Your task to perform on an android device: star an email in the gmail app Image 0: 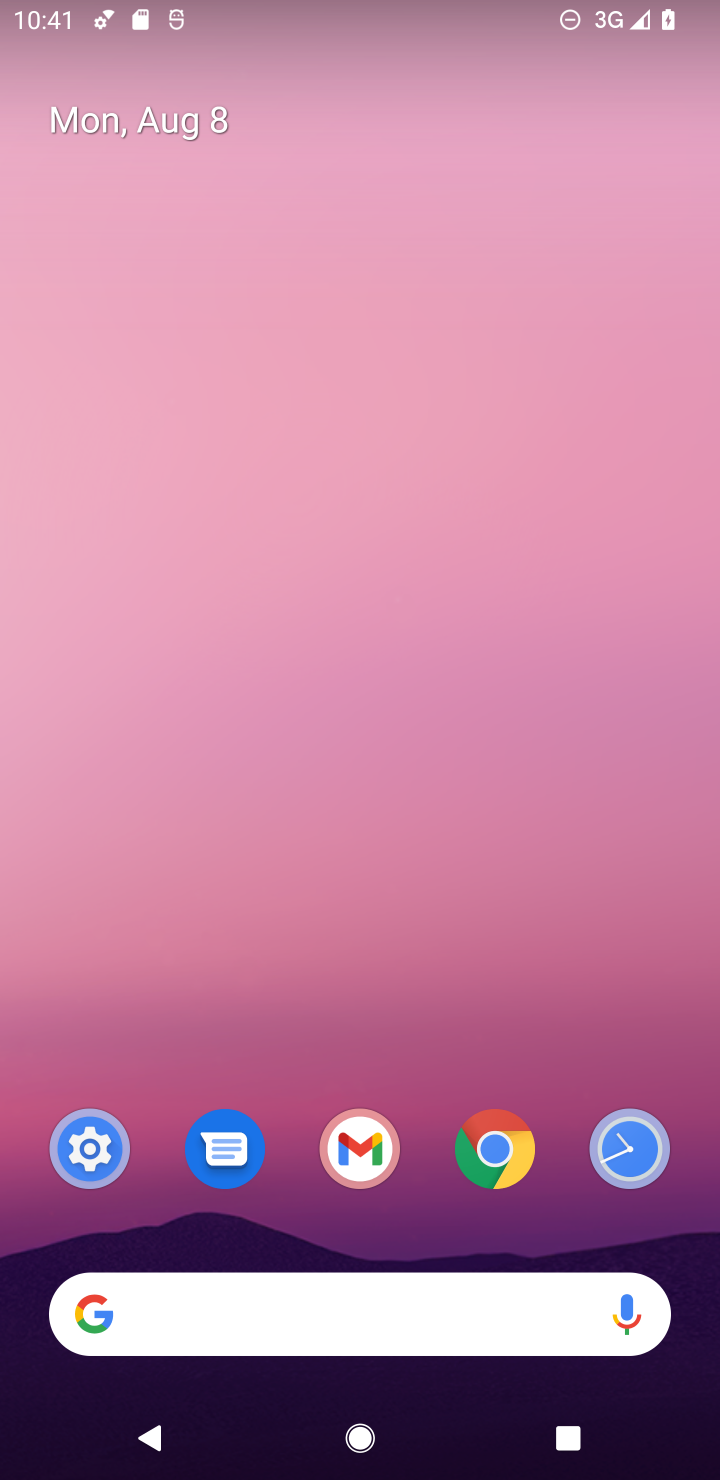
Step 0: drag from (302, 774) to (336, 389)
Your task to perform on an android device: star an email in the gmail app Image 1: 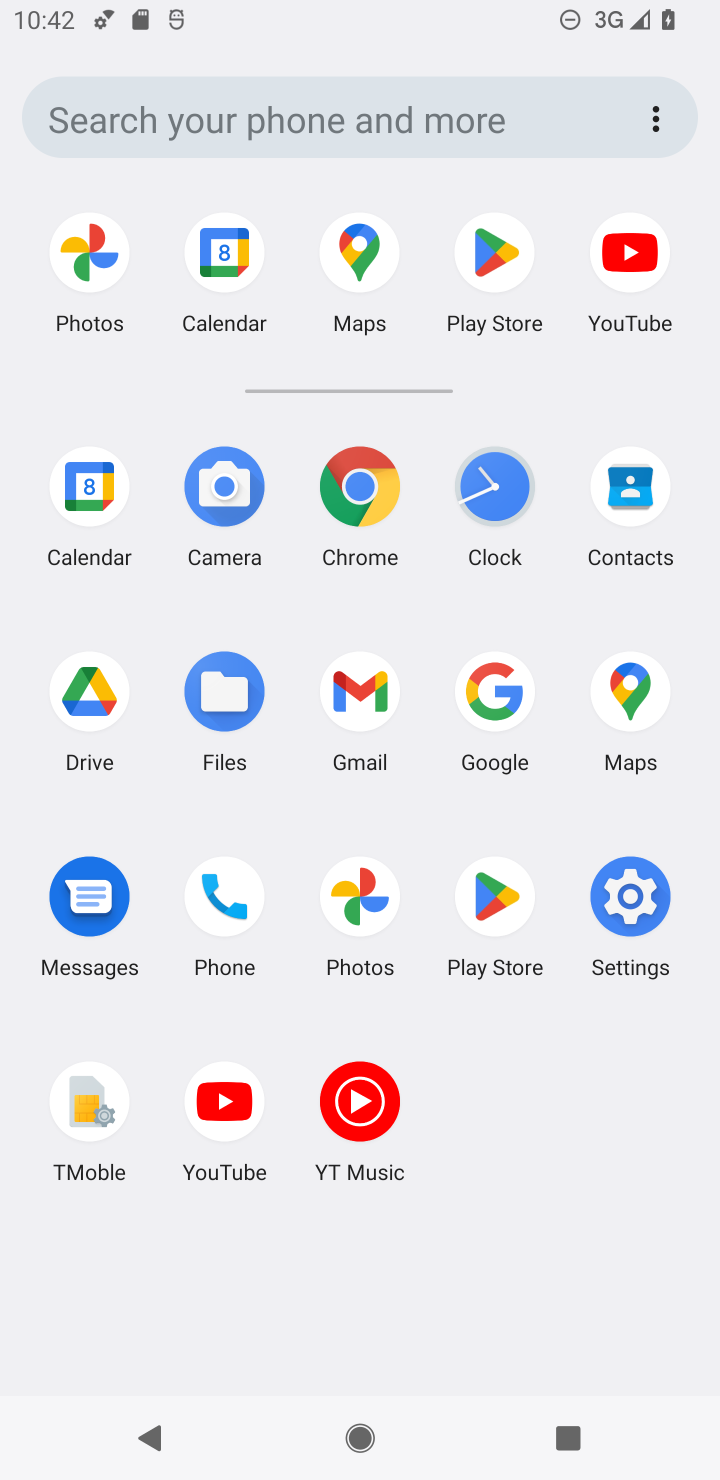
Step 1: click (365, 700)
Your task to perform on an android device: star an email in the gmail app Image 2: 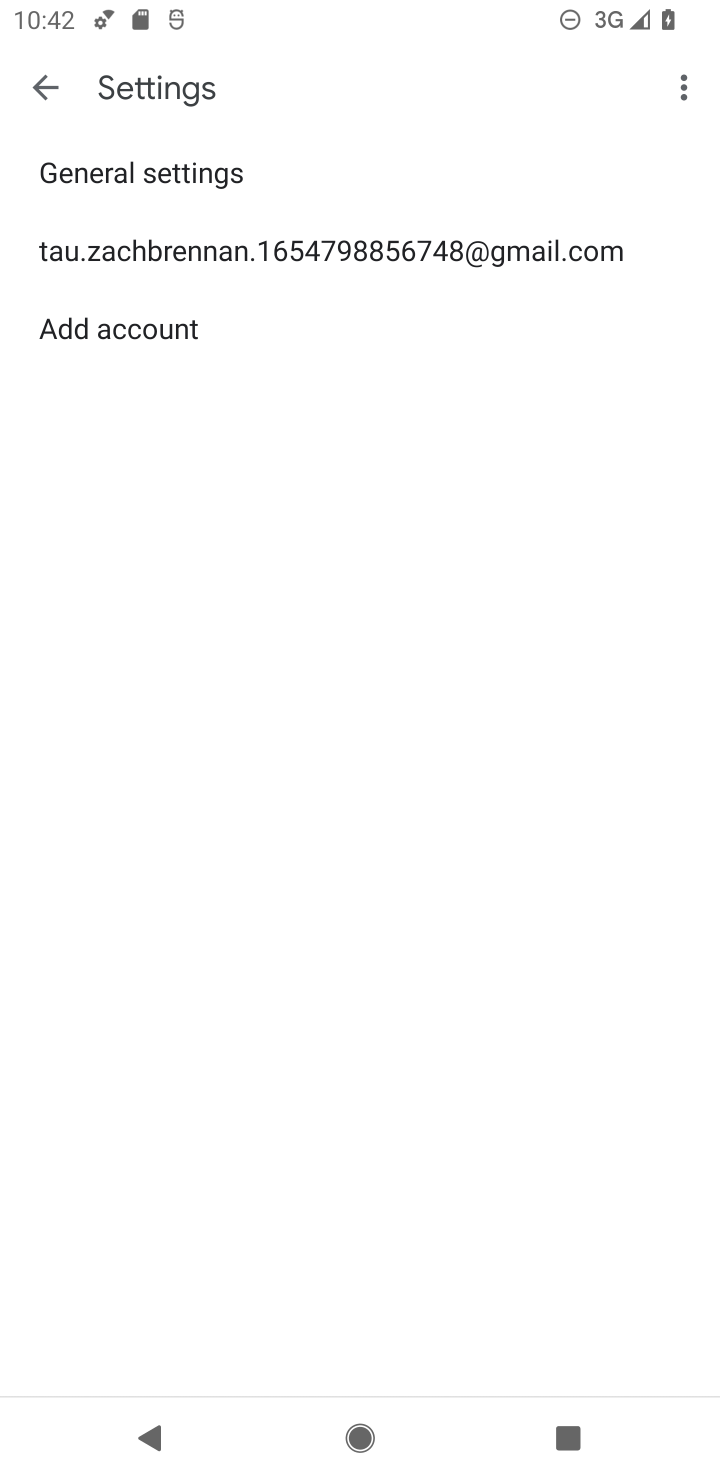
Step 2: click (51, 91)
Your task to perform on an android device: star an email in the gmail app Image 3: 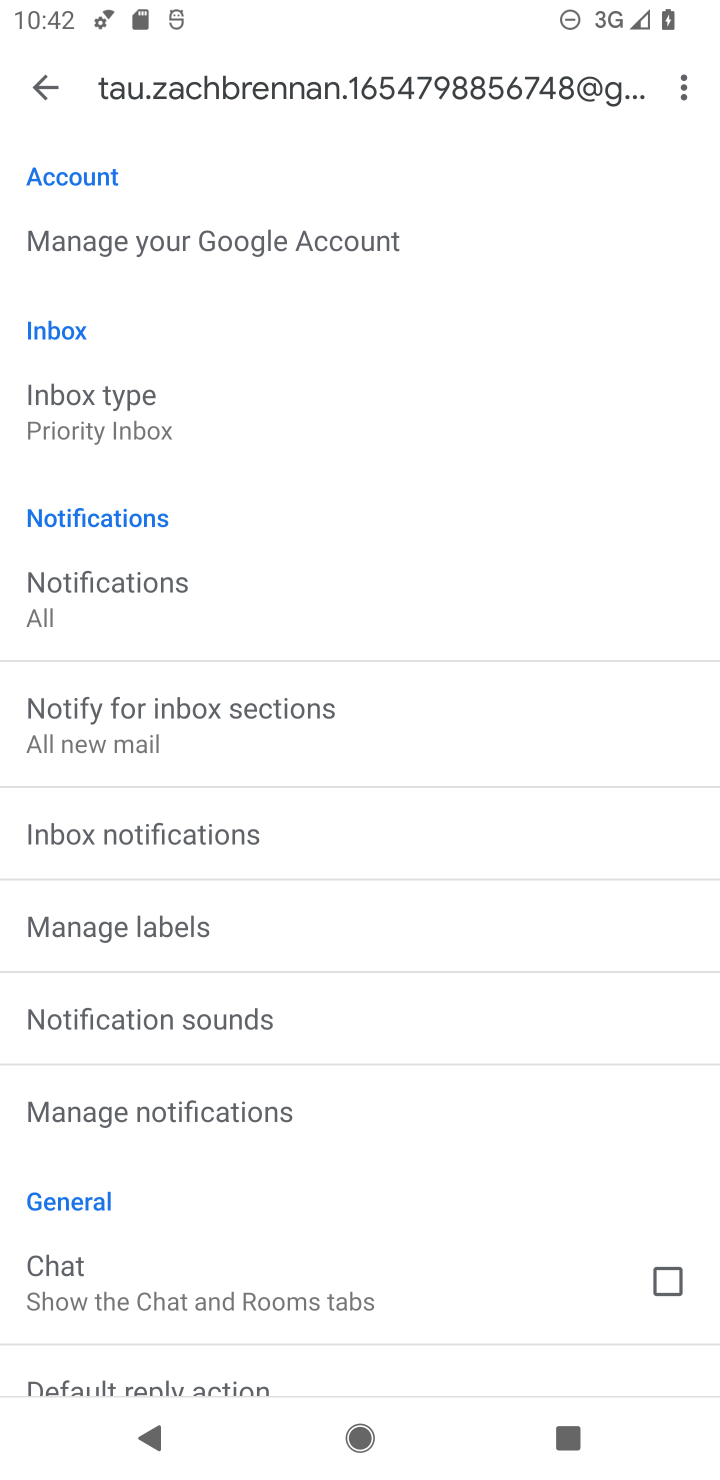
Step 3: click (48, 82)
Your task to perform on an android device: star an email in the gmail app Image 4: 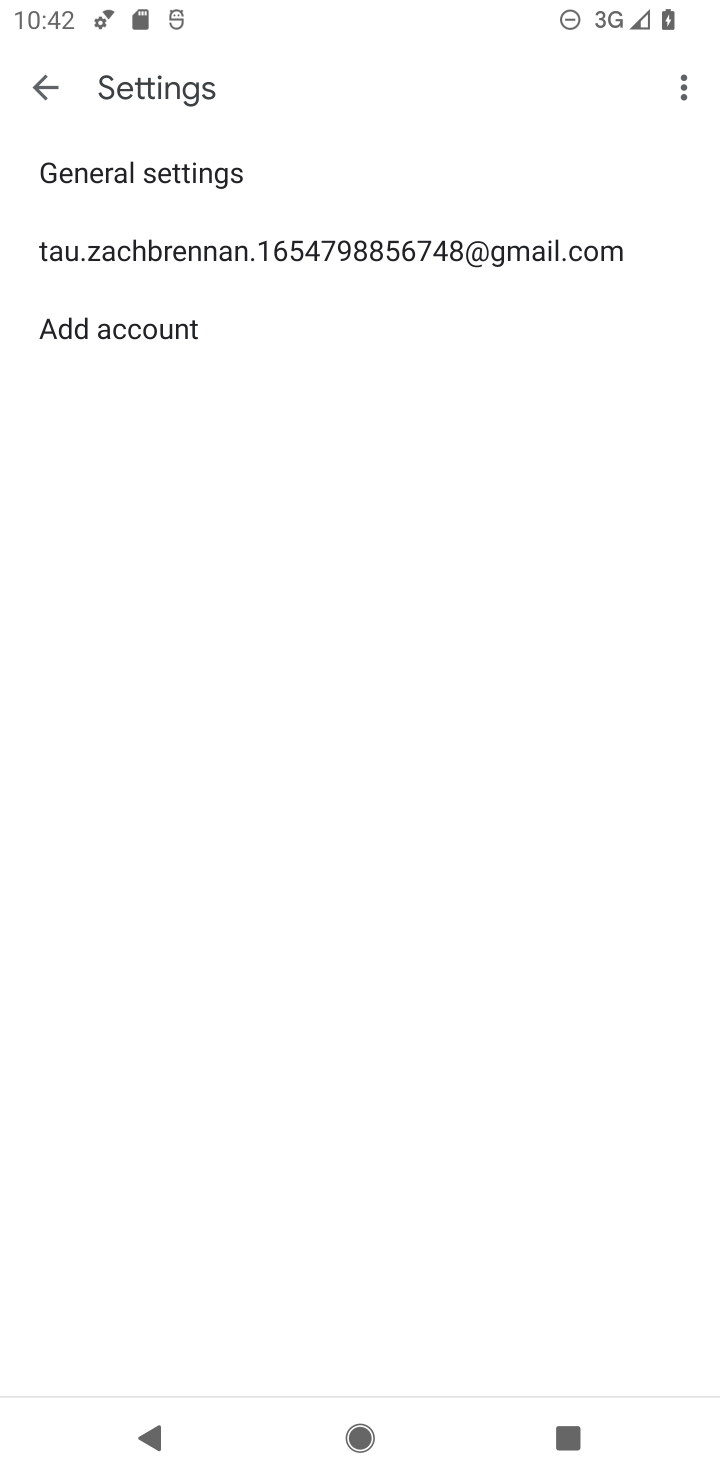
Step 4: click (35, 87)
Your task to perform on an android device: star an email in the gmail app Image 5: 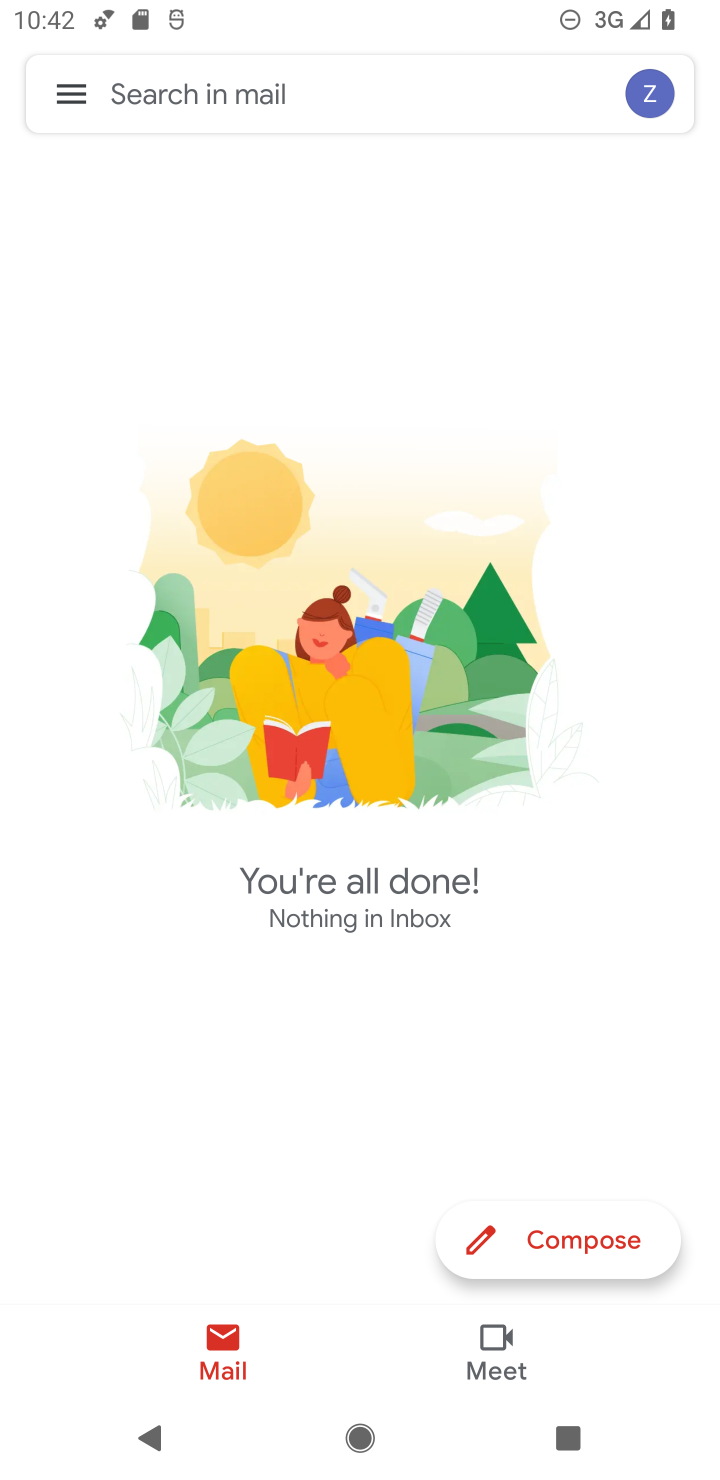
Step 5: click (71, 98)
Your task to perform on an android device: star an email in the gmail app Image 6: 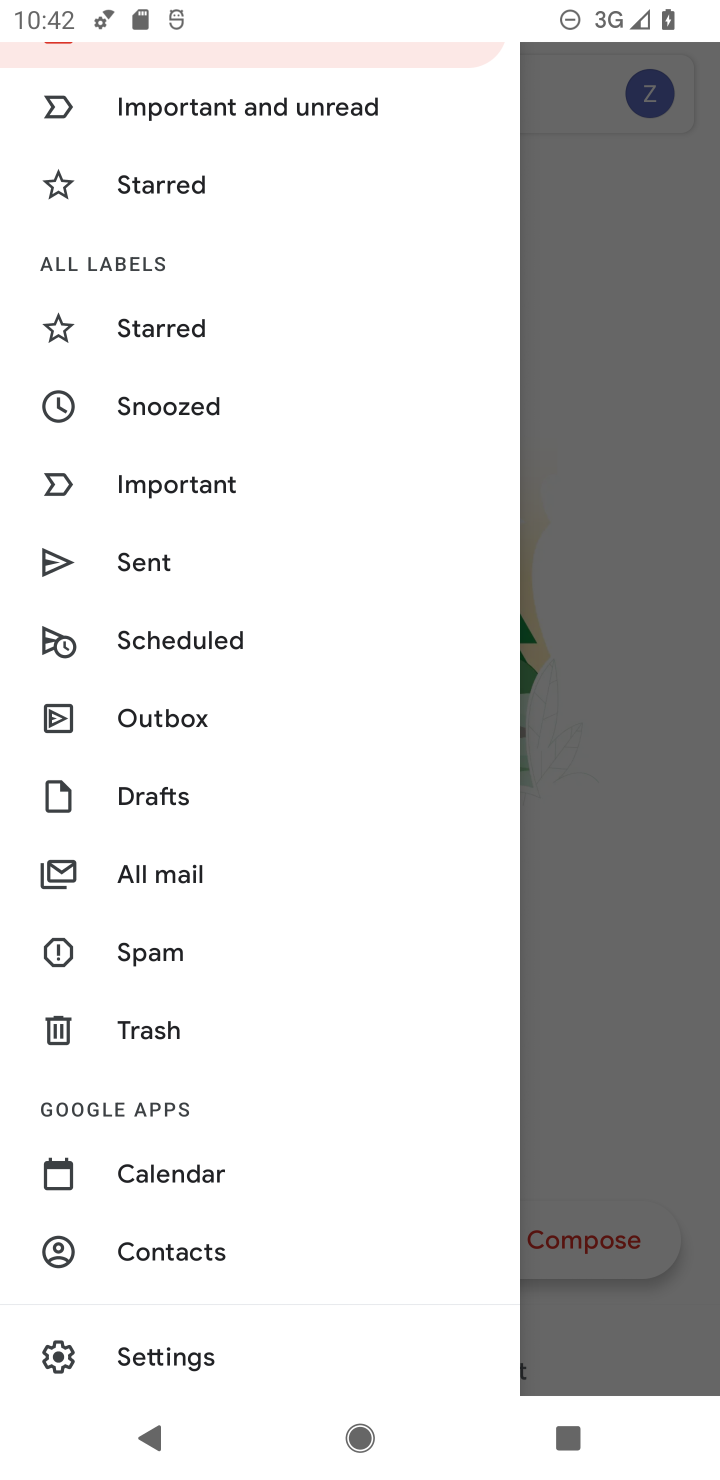
Step 6: click (154, 187)
Your task to perform on an android device: star an email in the gmail app Image 7: 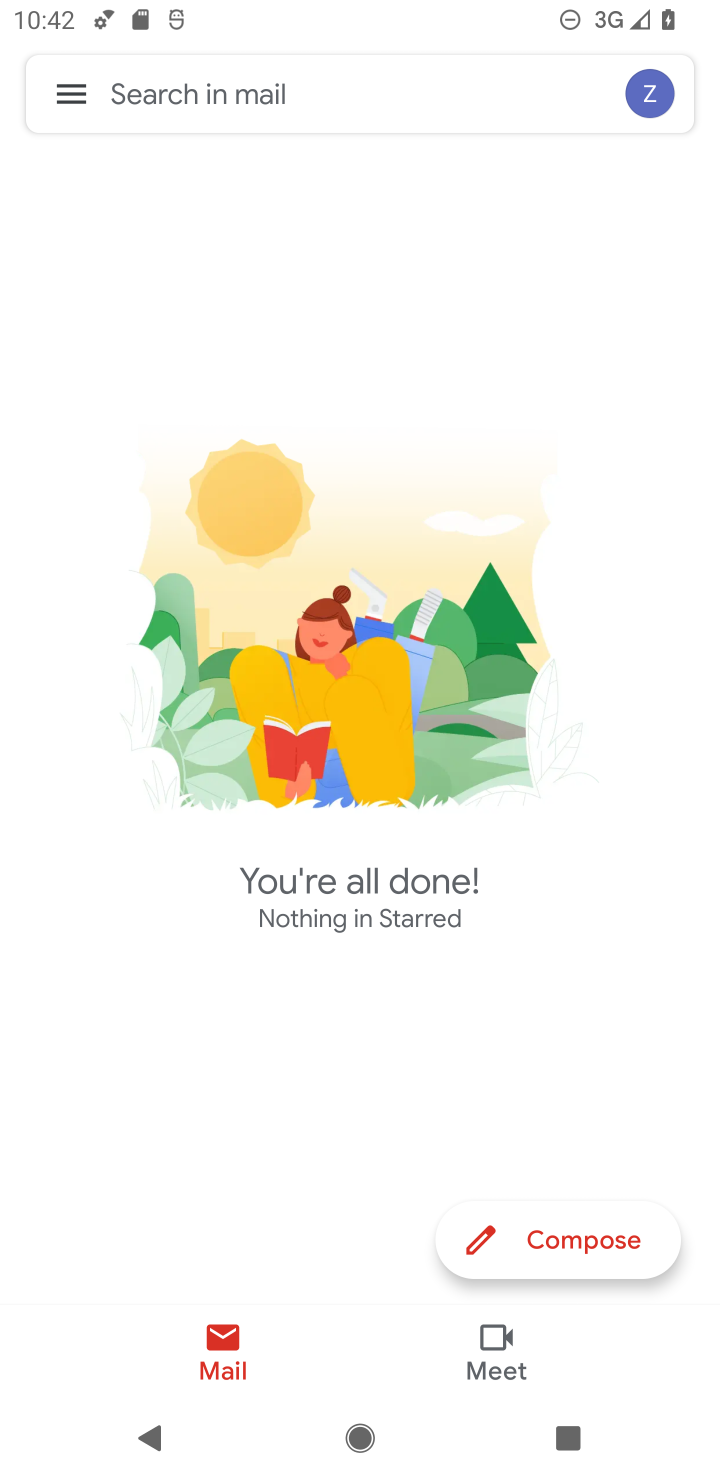
Step 7: task complete